Your task to perform on an android device: Go to battery settings Image 0: 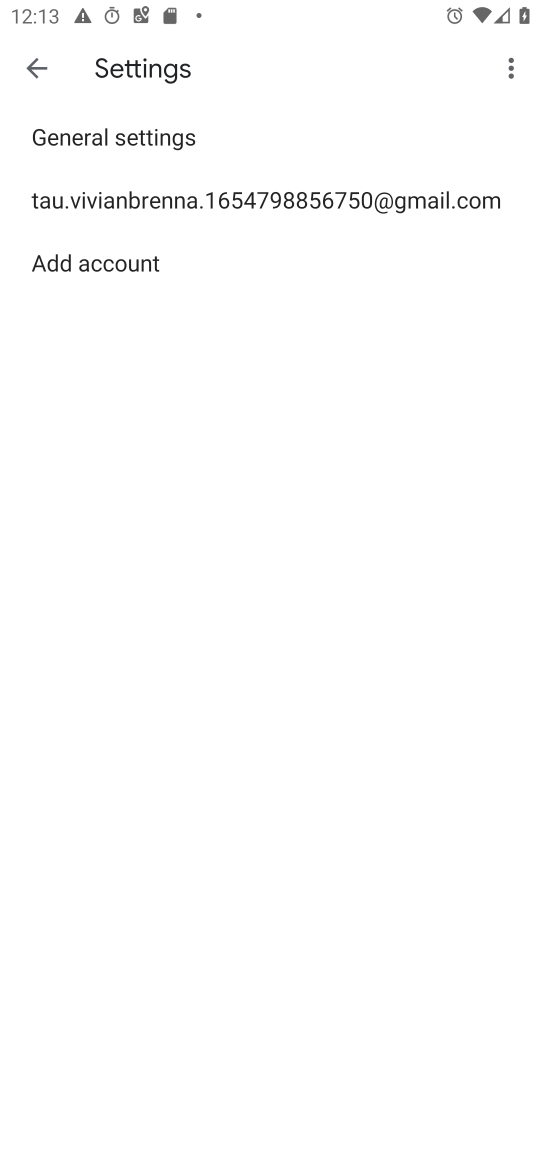
Step 0: press home button
Your task to perform on an android device: Go to battery settings Image 1: 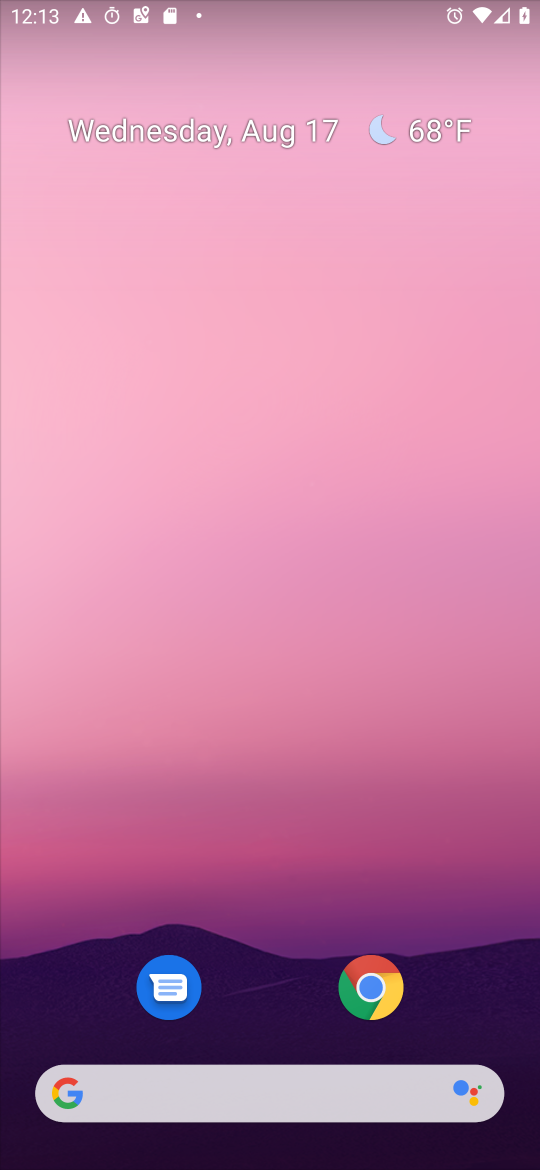
Step 1: drag from (5, 1089) to (307, 50)
Your task to perform on an android device: Go to battery settings Image 2: 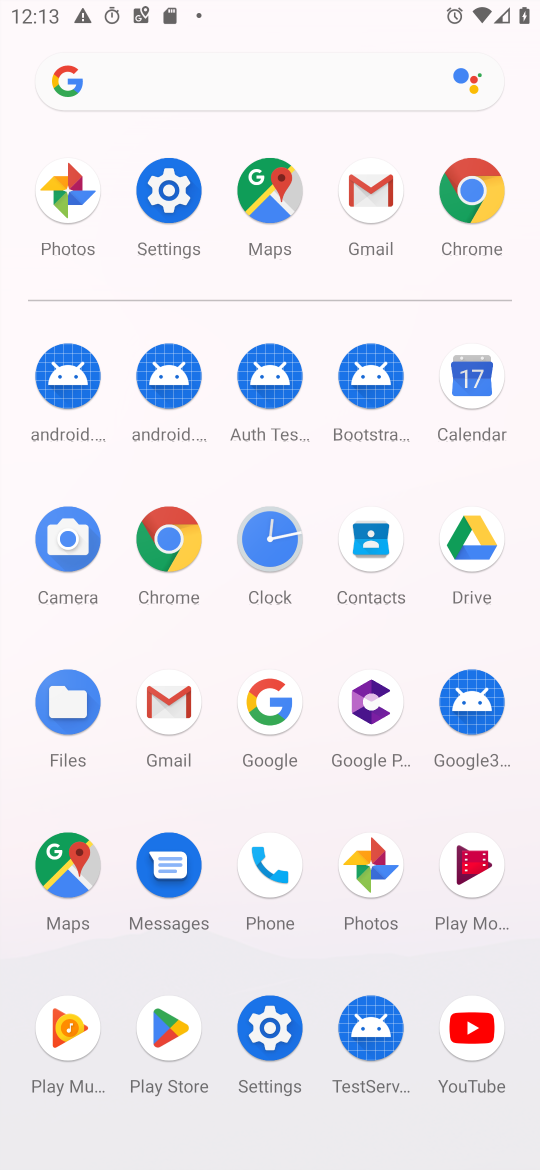
Step 2: click (288, 1026)
Your task to perform on an android device: Go to battery settings Image 3: 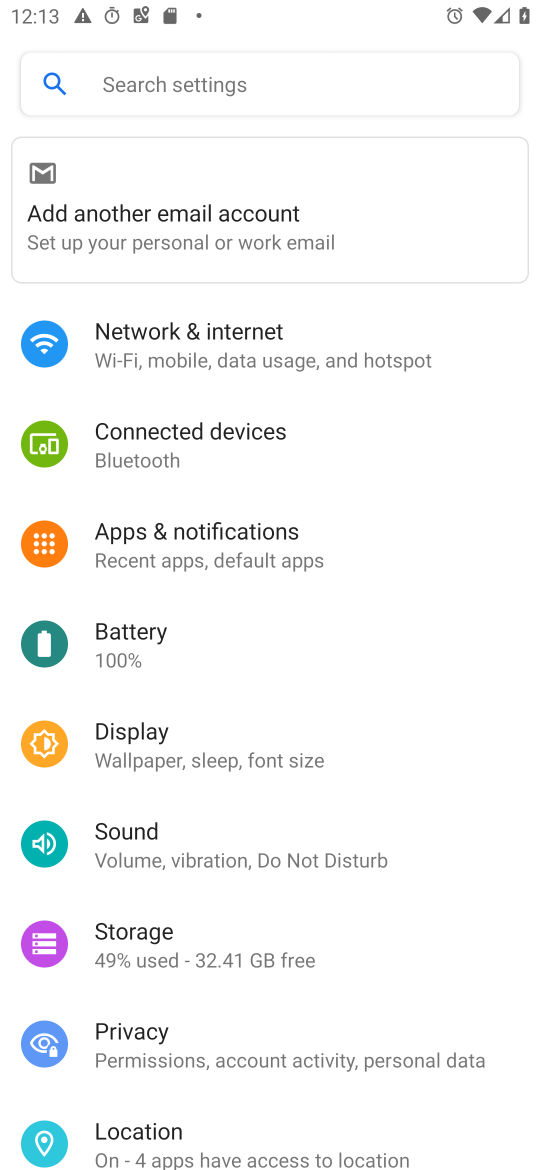
Step 3: click (156, 654)
Your task to perform on an android device: Go to battery settings Image 4: 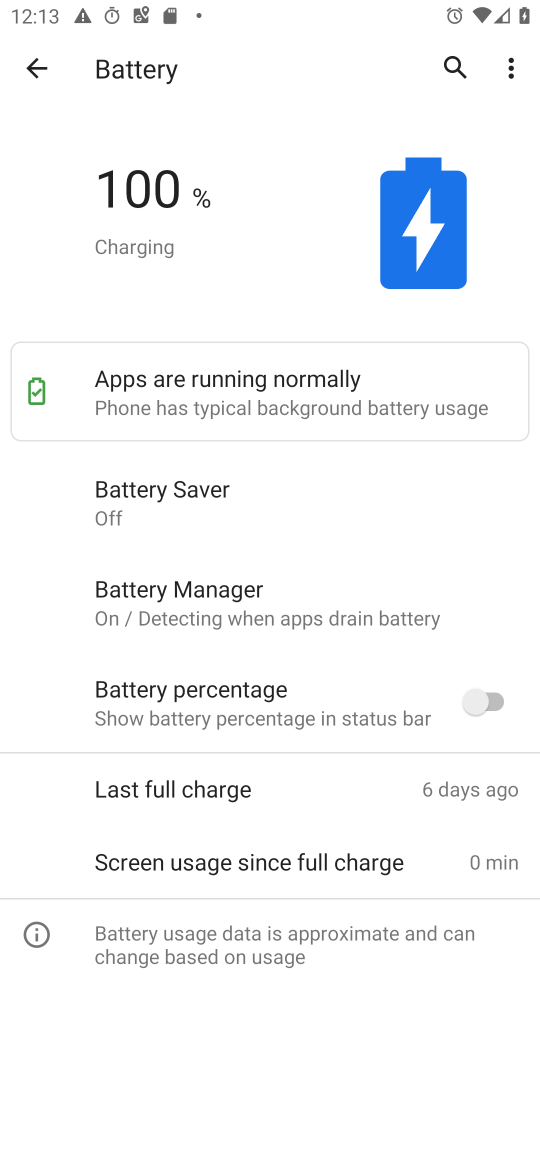
Step 4: task complete